Your task to perform on an android device: Open calendar and show me the fourth week of next month Image 0: 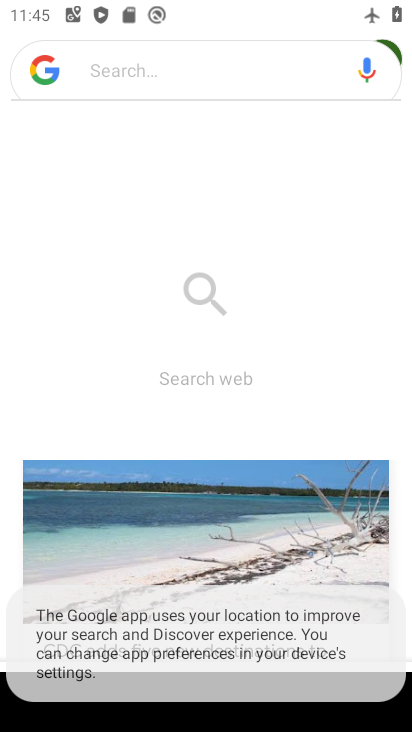
Step 0: press home button
Your task to perform on an android device: Open calendar and show me the fourth week of next month Image 1: 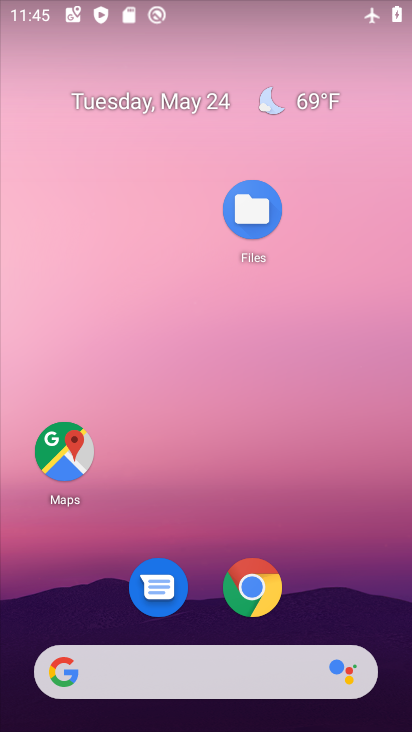
Step 1: drag from (319, 601) to (40, 119)
Your task to perform on an android device: Open calendar and show me the fourth week of next month Image 2: 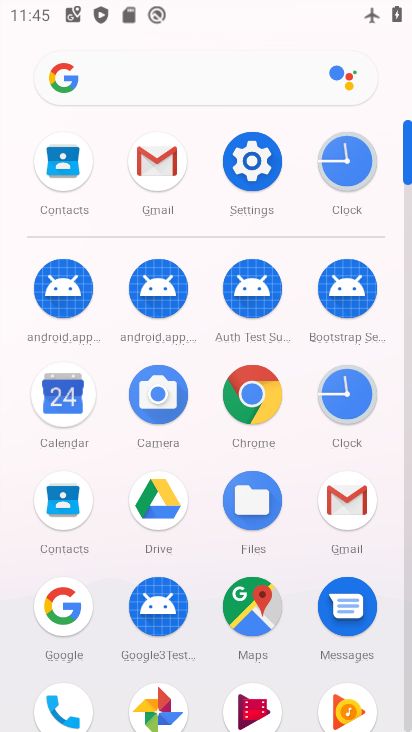
Step 2: click (57, 406)
Your task to perform on an android device: Open calendar and show me the fourth week of next month Image 3: 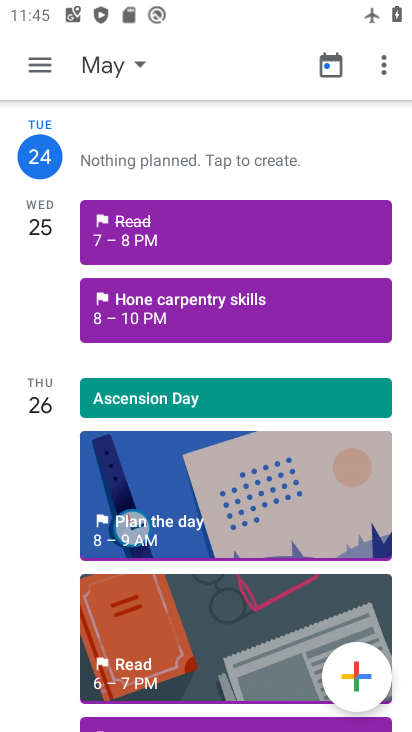
Step 3: click (128, 69)
Your task to perform on an android device: Open calendar and show me the fourth week of next month Image 4: 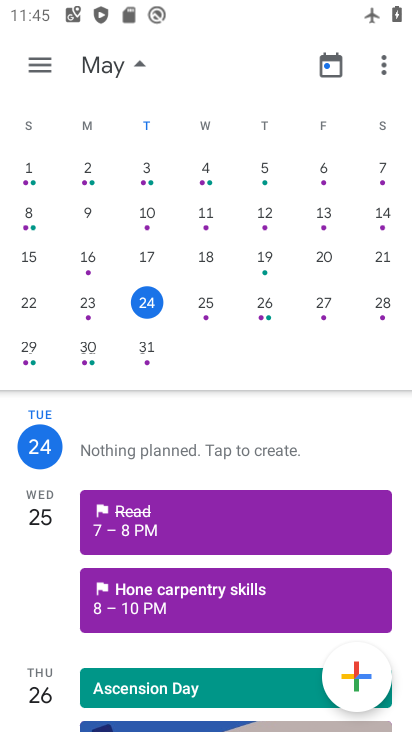
Step 4: drag from (395, 290) to (1, 249)
Your task to perform on an android device: Open calendar and show me the fourth week of next month Image 5: 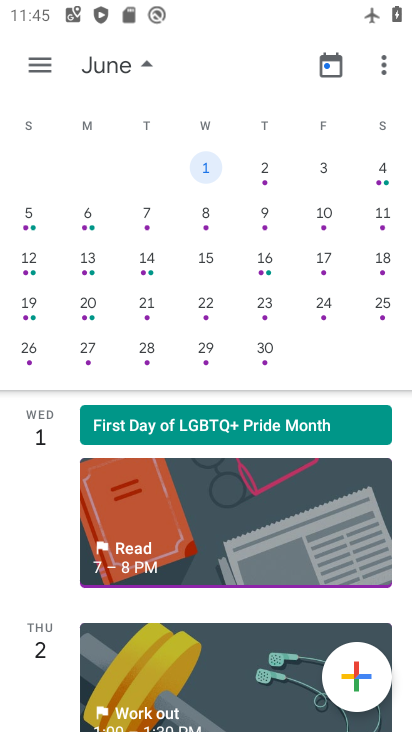
Step 5: click (29, 314)
Your task to perform on an android device: Open calendar and show me the fourth week of next month Image 6: 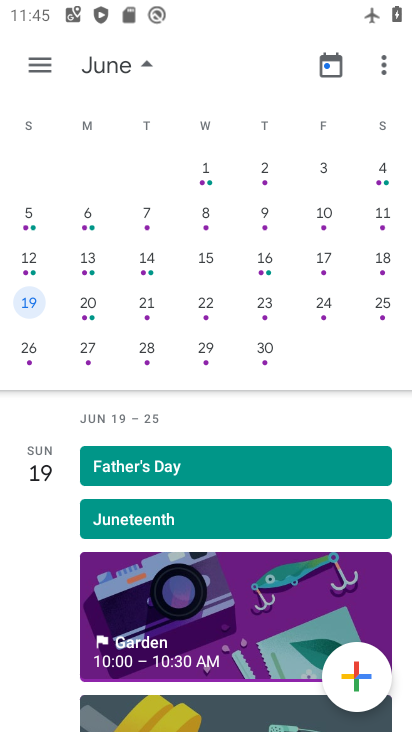
Step 6: click (37, 69)
Your task to perform on an android device: Open calendar and show me the fourth week of next month Image 7: 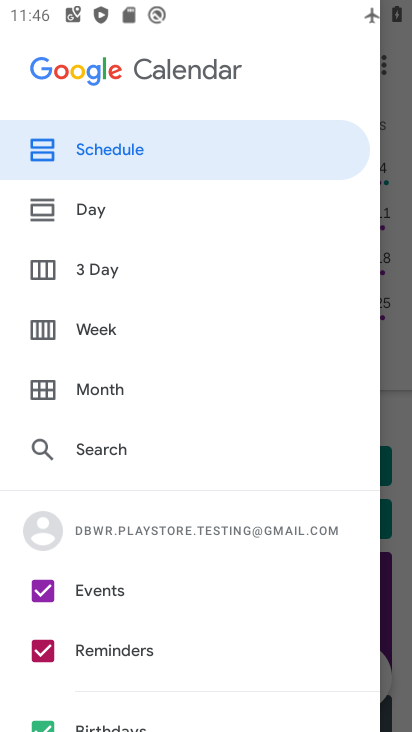
Step 7: click (58, 331)
Your task to perform on an android device: Open calendar and show me the fourth week of next month Image 8: 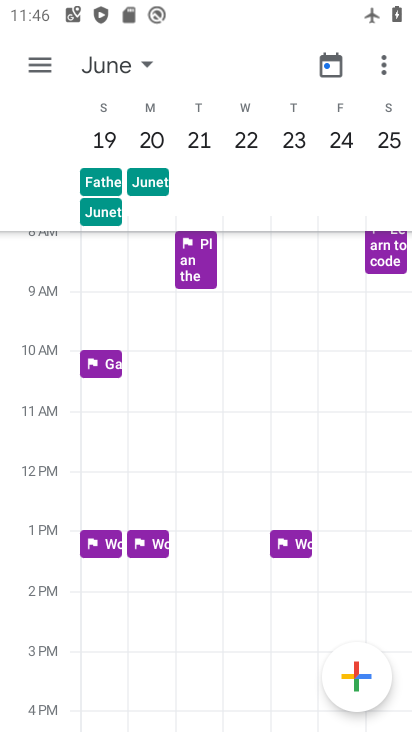
Step 8: task complete